Your task to perform on an android device: turn on airplane mode Image 0: 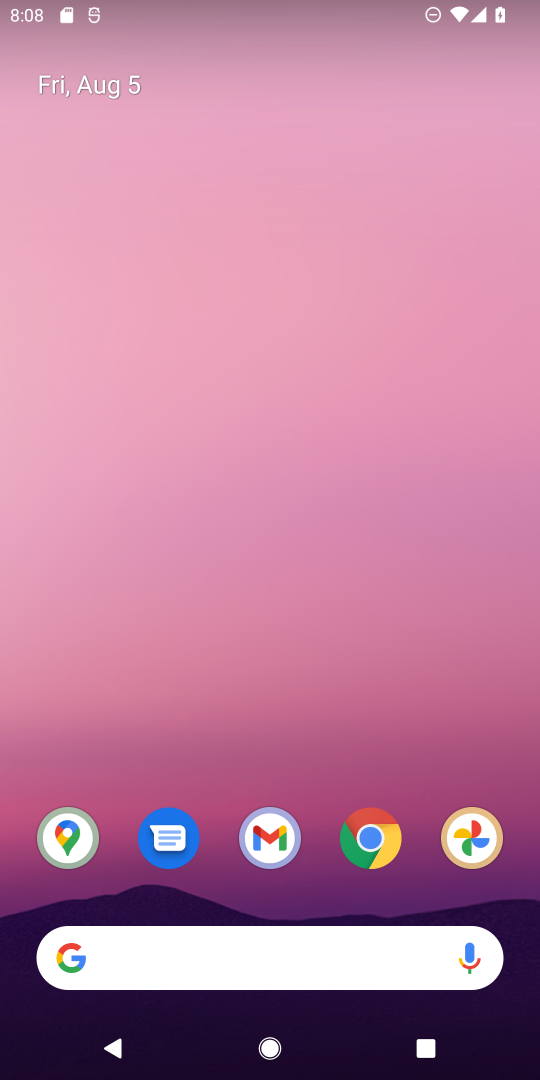
Step 0: drag from (272, 944) to (272, 551)
Your task to perform on an android device: turn on airplane mode Image 1: 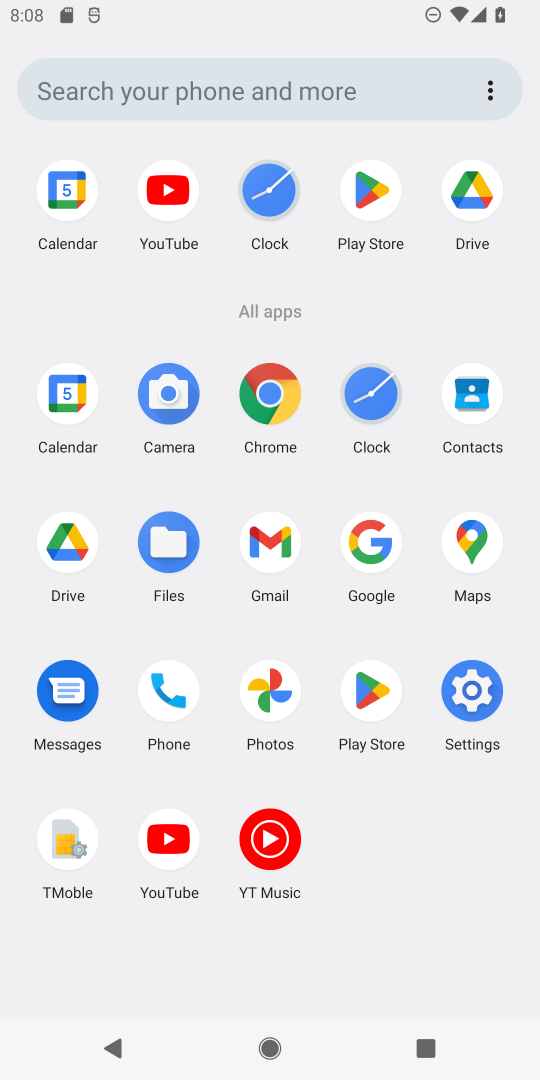
Step 1: click (478, 692)
Your task to perform on an android device: turn on airplane mode Image 2: 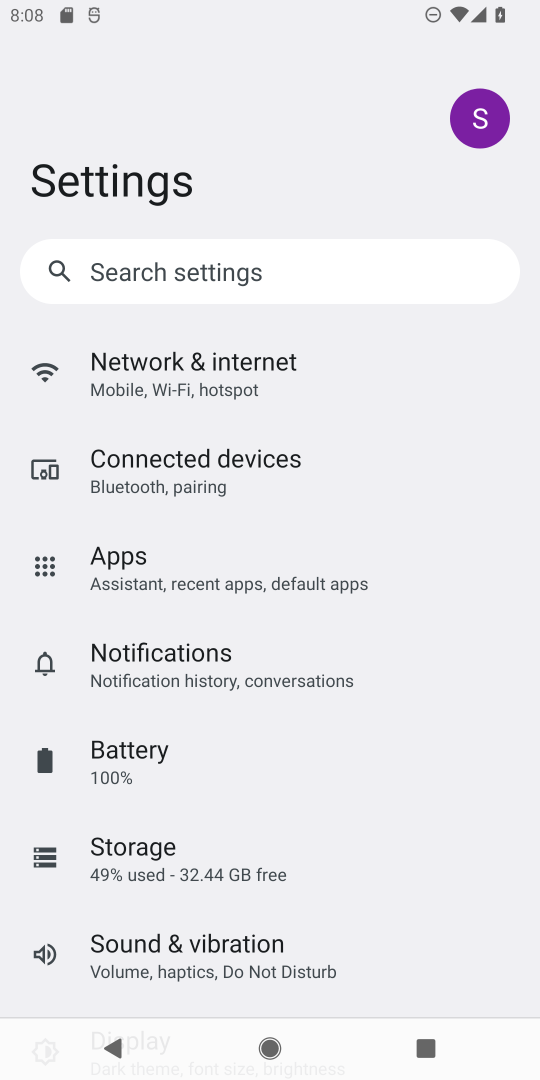
Step 2: click (213, 385)
Your task to perform on an android device: turn on airplane mode Image 3: 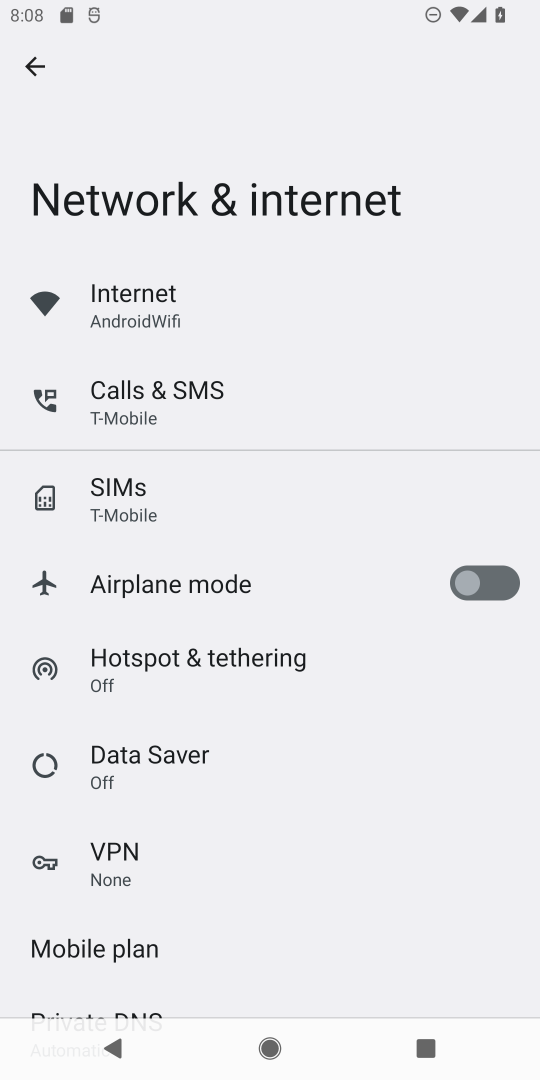
Step 3: click (492, 586)
Your task to perform on an android device: turn on airplane mode Image 4: 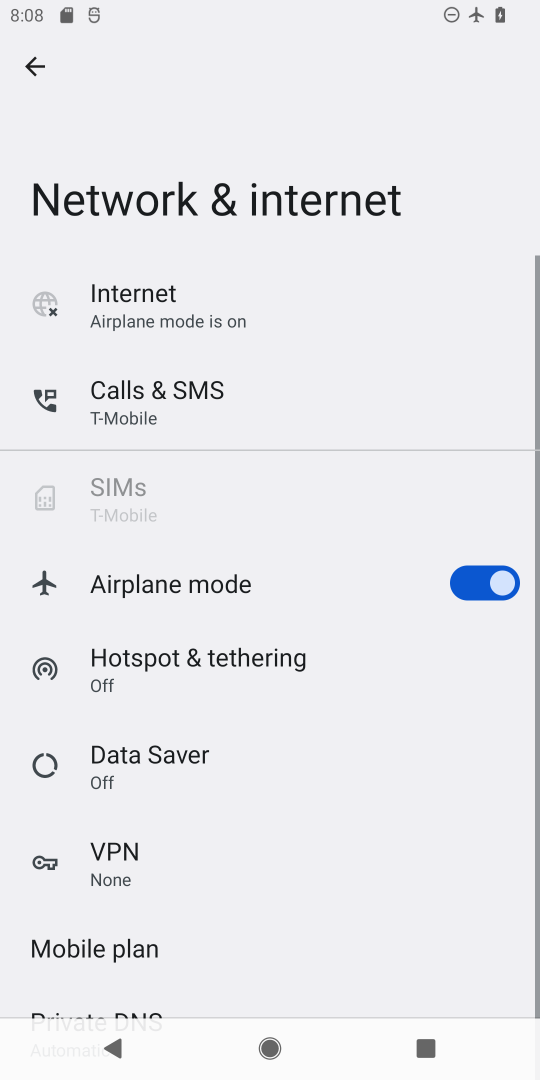
Step 4: task complete